Your task to perform on an android device: check google app version Image 0: 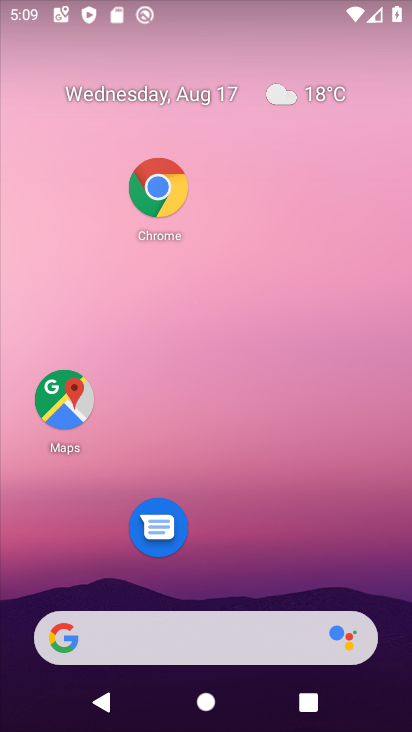
Step 0: click (175, 650)
Your task to perform on an android device: check google app version Image 1: 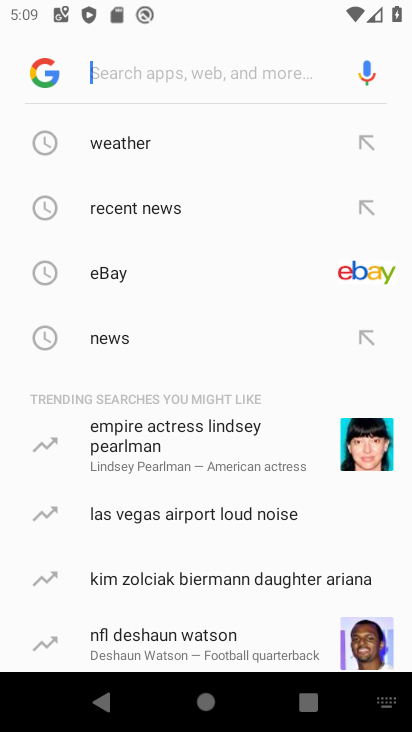
Step 1: click (40, 59)
Your task to perform on an android device: check google app version Image 2: 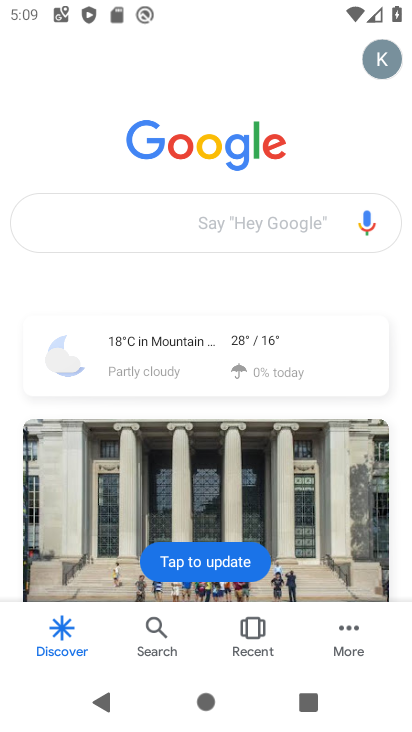
Step 2: click (353, 639)
Your task to perform on an android device: check google app version Image 3: 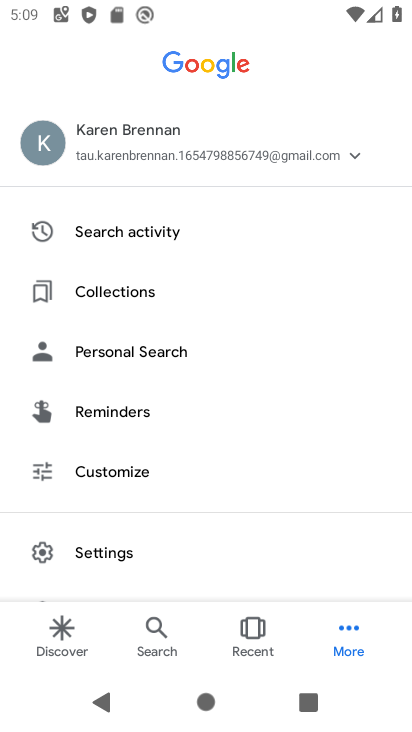
Step 3: click (150, 572)
Your task to perform on an android device: check google app version Image 4: 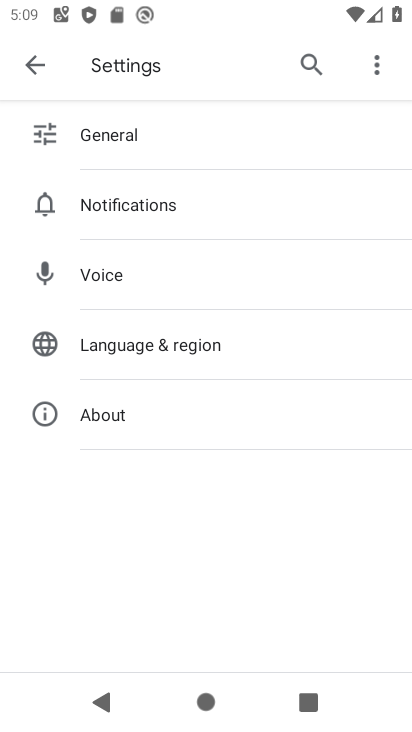
Step 4: click (116, 402)
Your task to perform on an android device: check google app version Image 5: 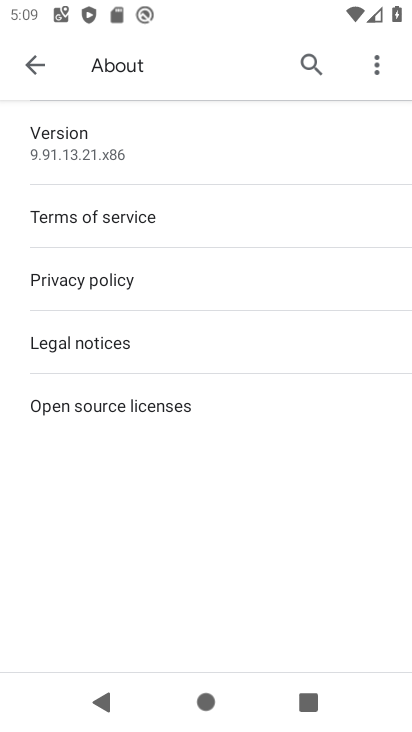
Step 5: click (121, 151)
Your task to perform on an android device: check google app version Image 6: 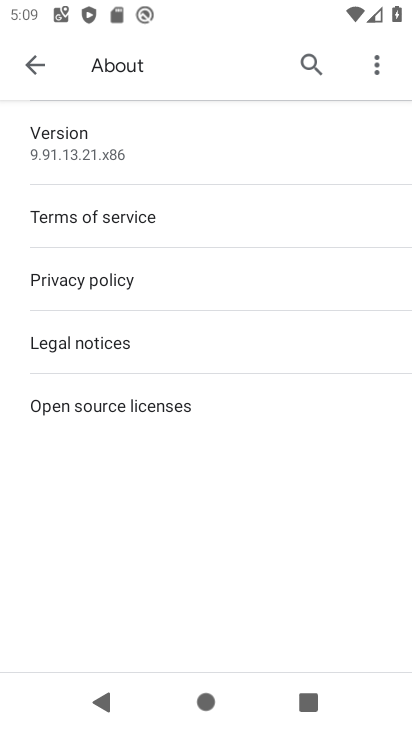
Step 6: task complete